Your task to perform on an android device: stop showing notifications on the lock screen Image 0: 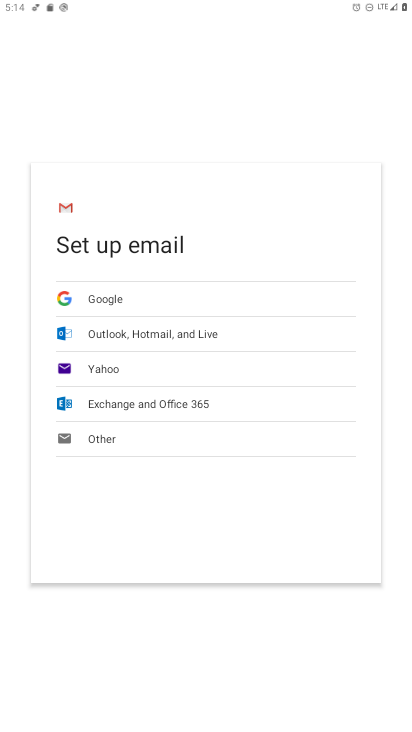
Step 0: press home button
Your task to perform on an android device: stop showing notifications on the lock screen Image 1: 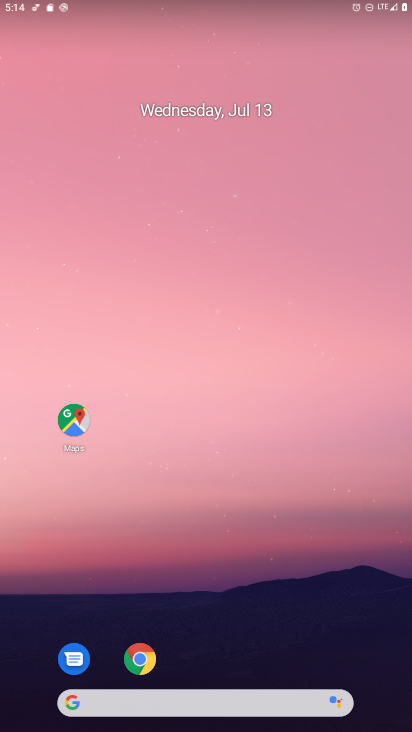
Step 1: drag from (322, 603) to (187, 116)
Your task to perform on an android device: stop showing notifications on the lock screen Image 2: 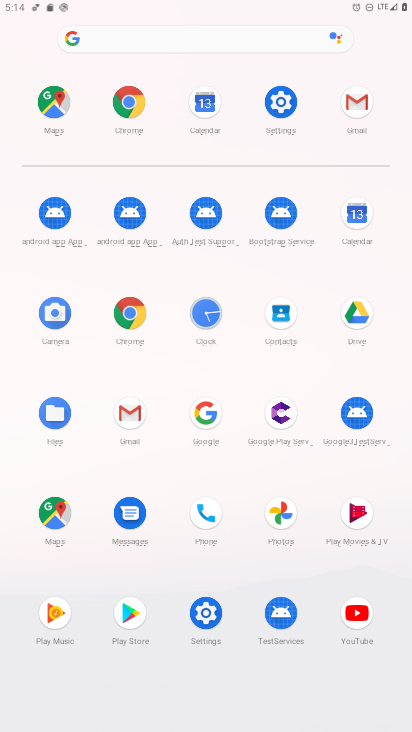
Step 2: click (278, 101)
Your task to perform on an android device: stop showing notifications on the lock screen Image 3: 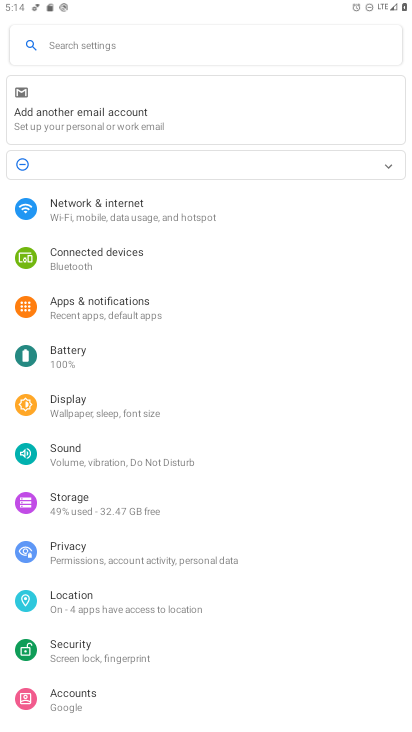
Step 3: click (132, 306)
Your task to perform on an android device: stop showing notifications on the lock screen Image 4: 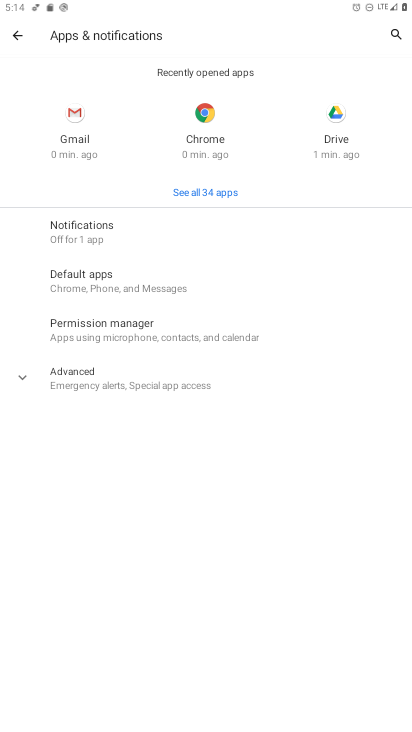
Step 4: click (107, 243)
Your task to perform on an android device: stop showing notifications on the lock screen Image 5: 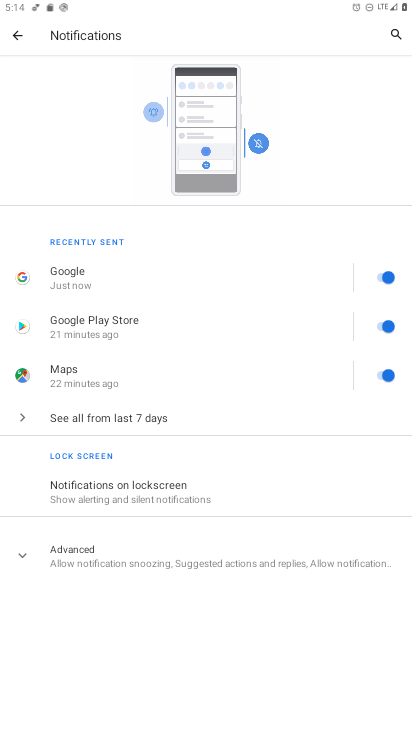
Step 5: click (178, 500)
Your task to perform on an android device: stop showing notifications on the lock screen Image 6: 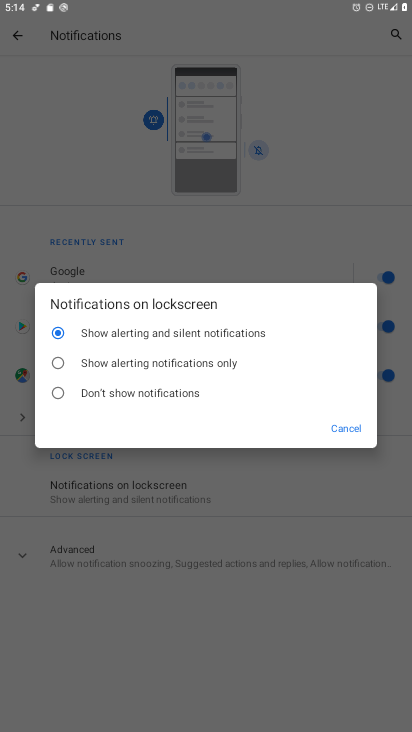
Step 6: click (175, 393)
Your task to perform on an android device: stop showing notifications on the lock screen Image 7: 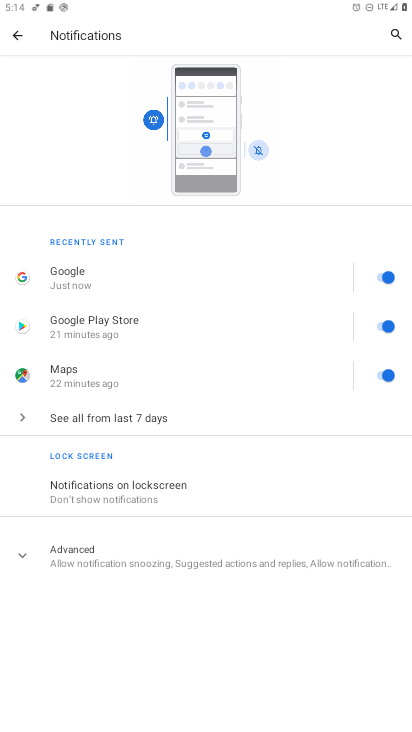
Step 7: task complete